Your task to perform on an android device: see sites visited before in the chrome app Image 0: 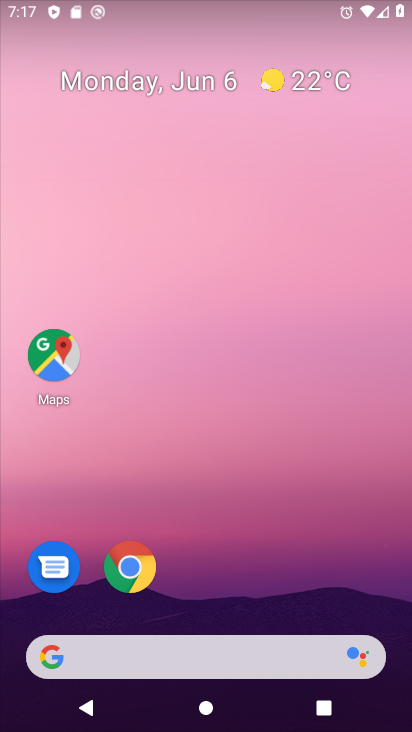
Step 0: press home button
Your task to perform on an android device: see sites visited before in the chrome app Image 1: 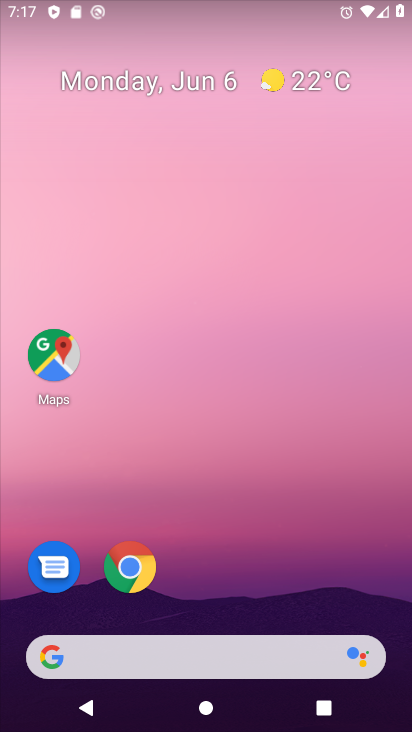
Step 1: click (150, 569)
Your task to perform on an android device: see sites visited before in the chrome app Image 2: 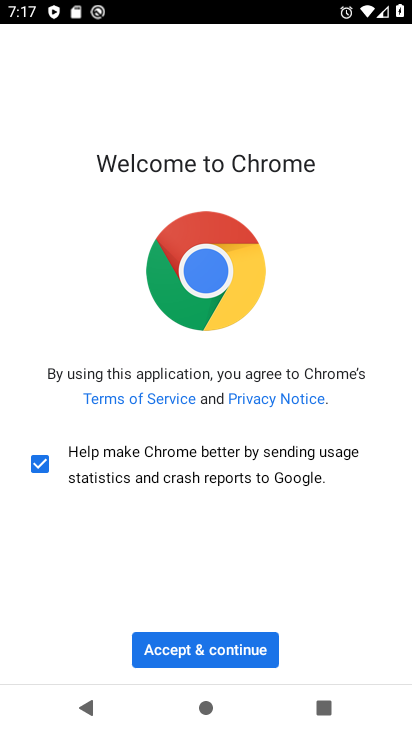
Step 2: click (214, 659)
Your task to perform on an android device: see sites visited before in the chrome app Image 3: 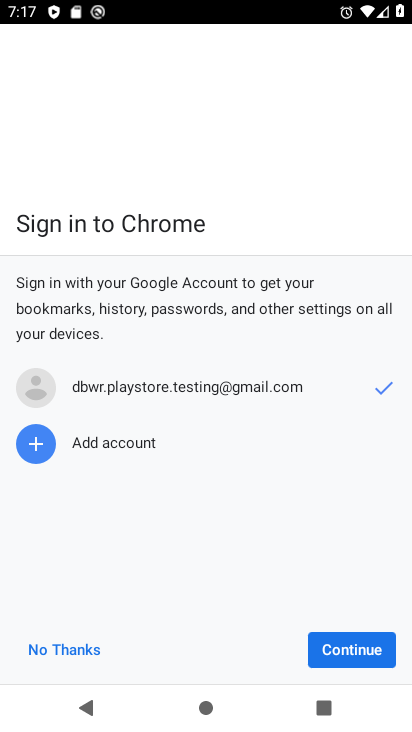
Step 3: click (389, 652)
Your task to perform on an android device: see sites visited before in the chrome app Image 4: 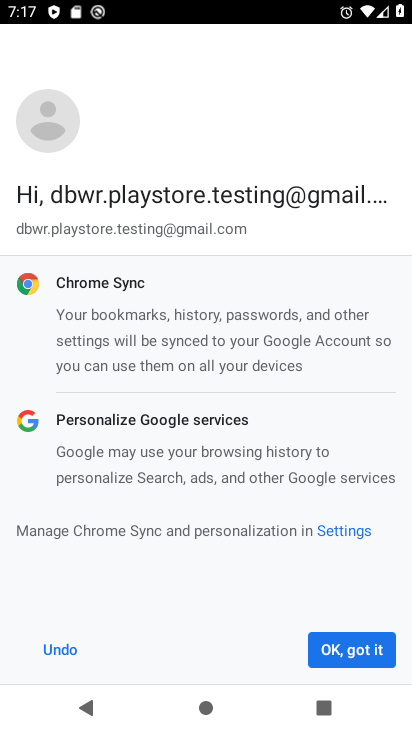
Step 4: click (336, 655)
Your task to perform on an android device: see sites visited before in the chrome app Image 5: 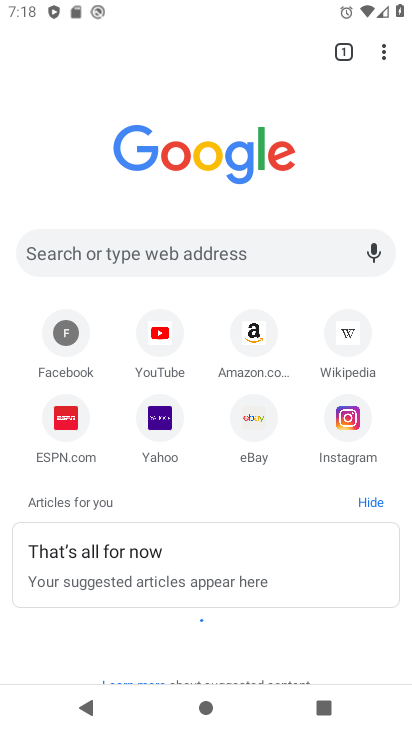
Step 5: click (381, 46)
Your task to perform on an android device: see sites visited before in the chrome app Image 6: 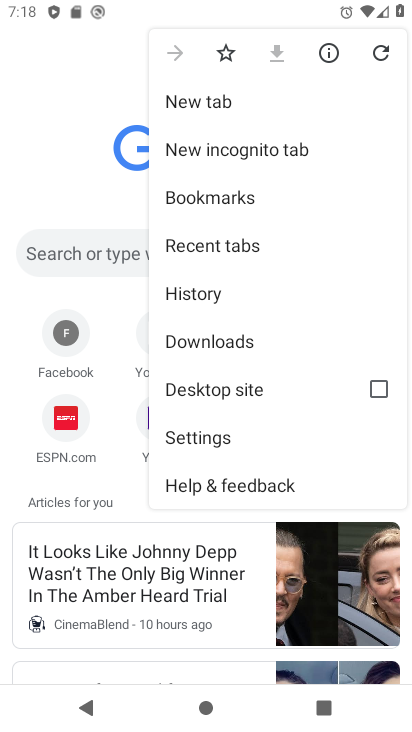
Step 6: click (237, 242)
Your task to perform on an android device: see sites visited before in the chrome app Image 7: 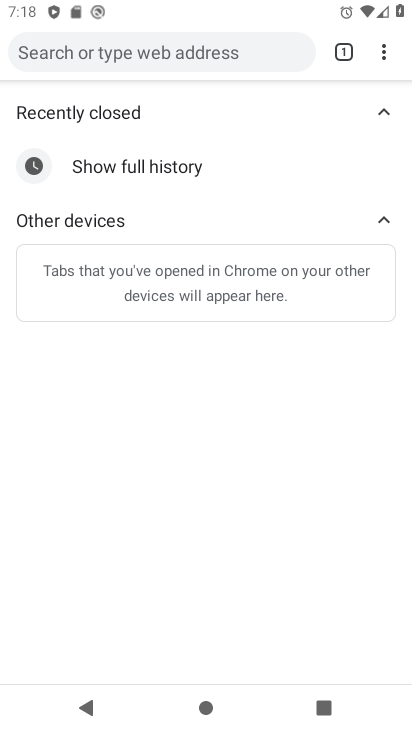
Step 7: click (176, 172)
Your task to perform on an android device: see sites visited before in the chrome app Image 8: 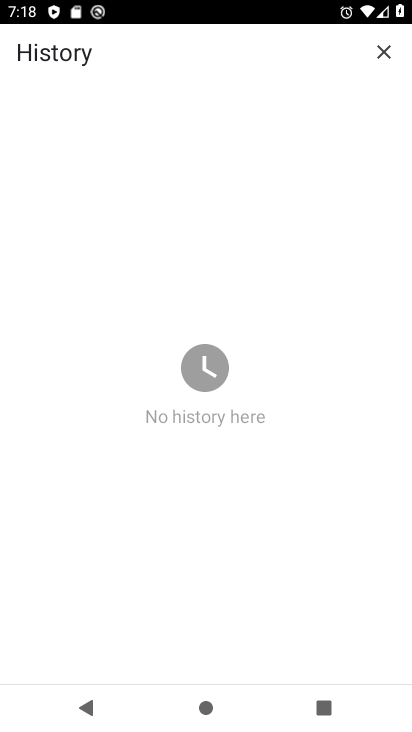
Step 8: task complete